Your task to perform on an android device: star an email in the gmail app Image 0: 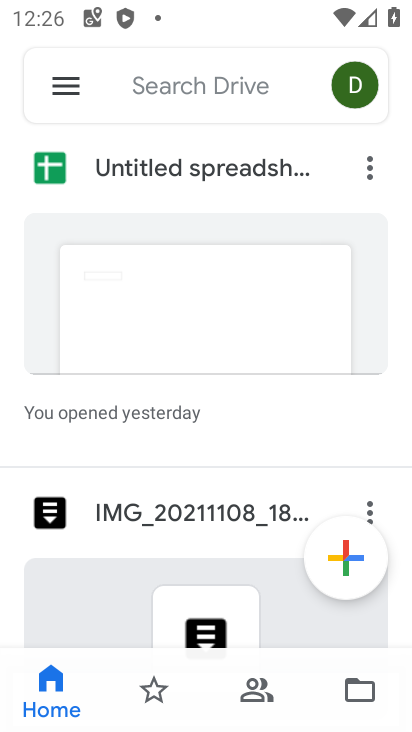
Step 0: press home button
Your task to perform on an android device: star an email in the gmail app Image 1: 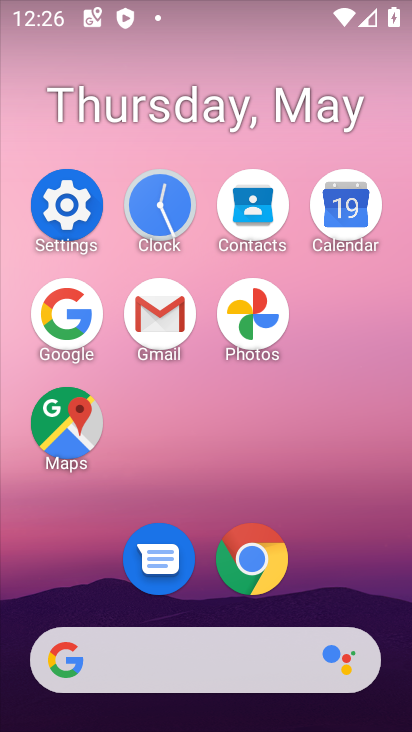
Step 1: click (178, 210)
Your task to perform on an android device: star an email in the gmail app Image 2: 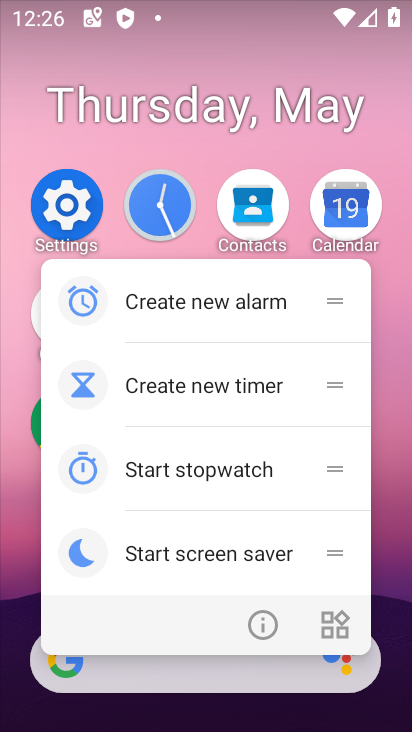
Step 2: click (173, 206)
Your task to perform on an android device: star an email in the gmail app Image 3: 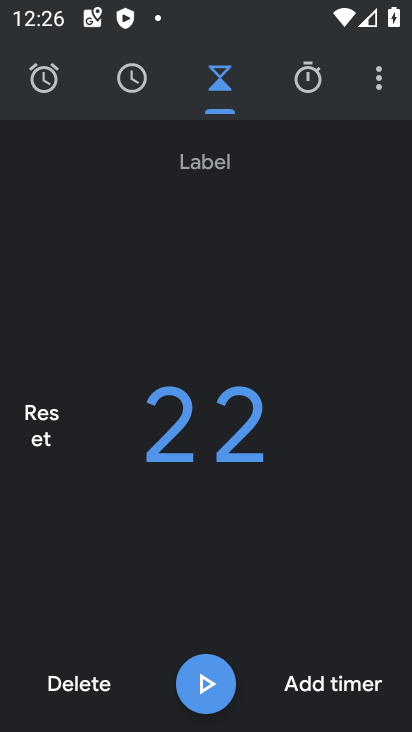
Step 3: click (320, 80)
Your task to perform on an android device: star an email in the gmail app Image 4: 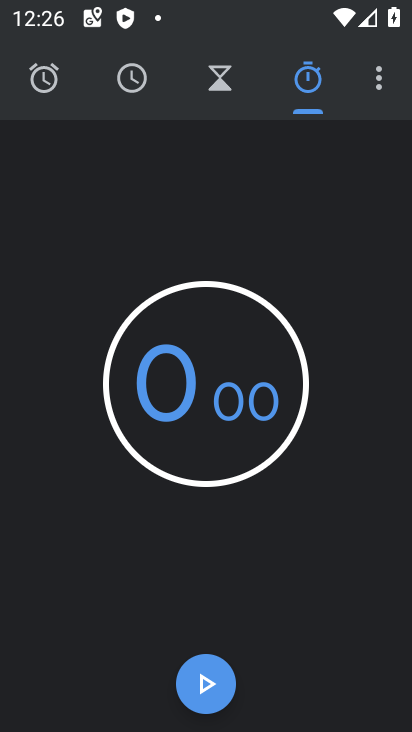
Step 4: press home button
Your task to perform on an android device: star an email in the gmail app Image 5: 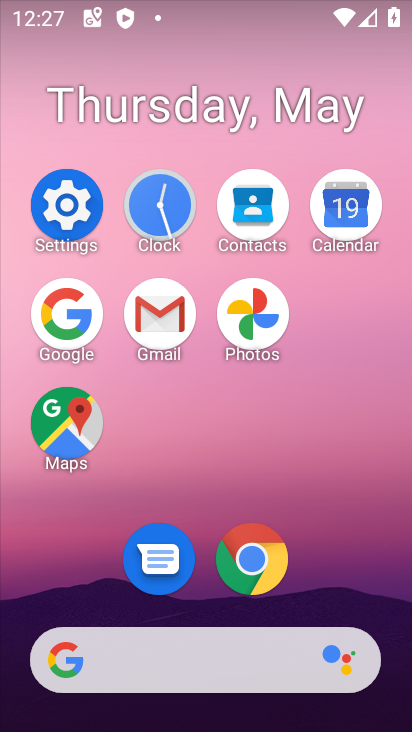
Step 5: click (171, 322)
Your task to perform on an android device: star an email in the gmail app Image 6: 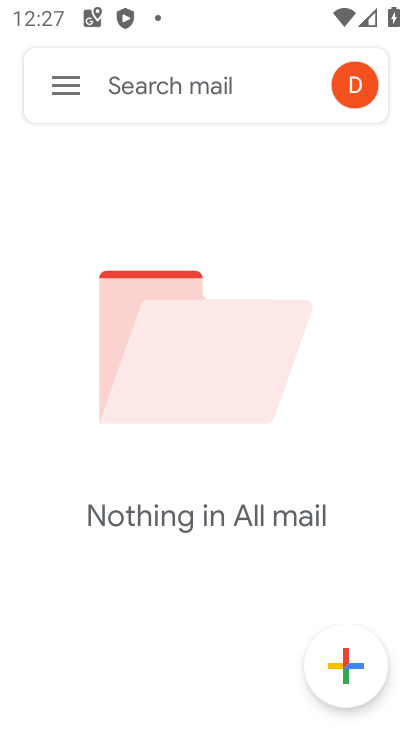
Step 6: click (68, 102)
Your task to perform on an android device: star an email in the gmail app Image 7: 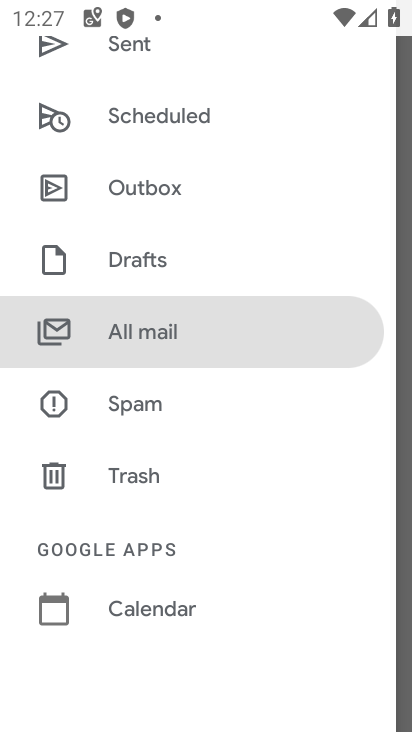
Step 7: click (193, 324)
Your task to perform on an android device: star an email in the gmail app Image 8: 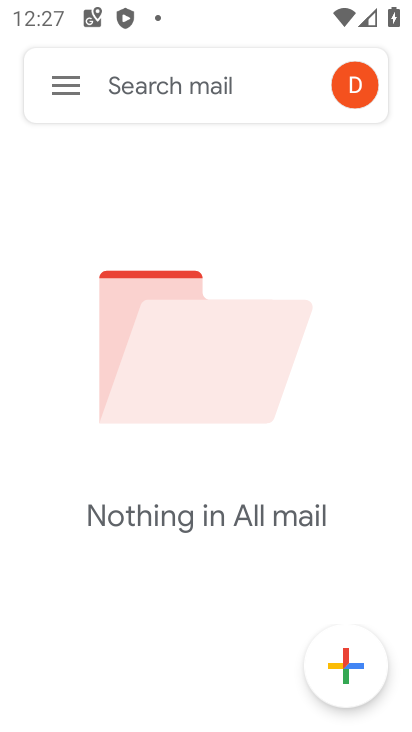
Step 8: task complete